Your task to perform on an android device: Go to settings Image 0: 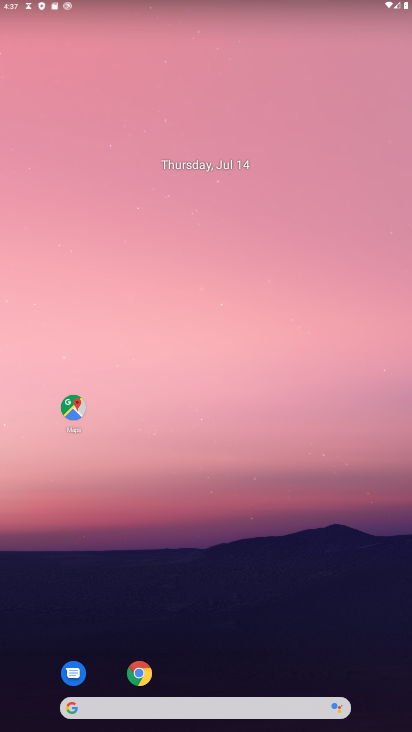
Step 0: drag from (282, 489) to (235, 175)
Your task to perform on an android device: Go to settings Image 1: 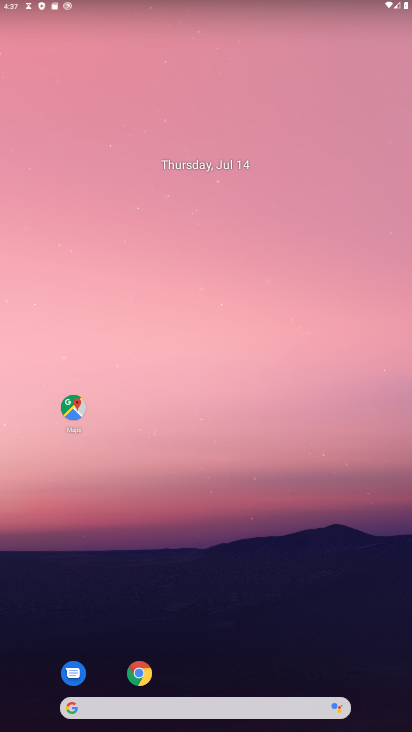
Step 1: drag from (216, 432) to (135, 119)
Your task to perform on an android device: Go to settings Image 2: 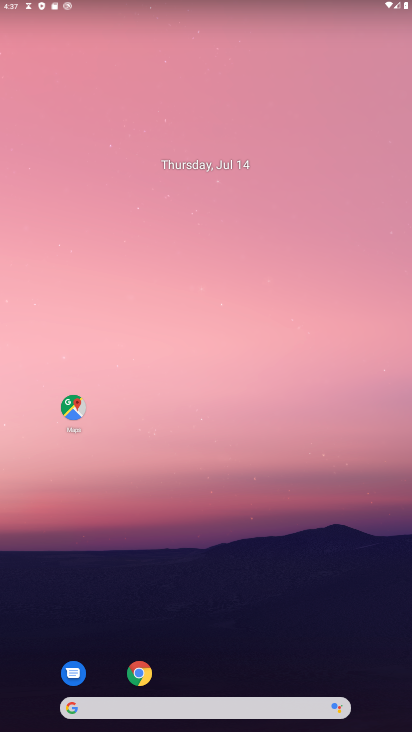
Step 2: drag from (205, 468) to (152, 69)
Your task to perform on an android device: Go to settings Image 3: 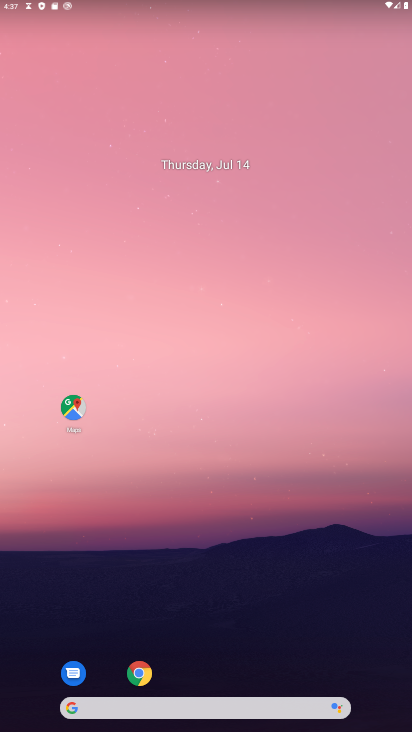
Step 3: click (176, 113)
Your task to perform on an android device: Go to settings Image 4: 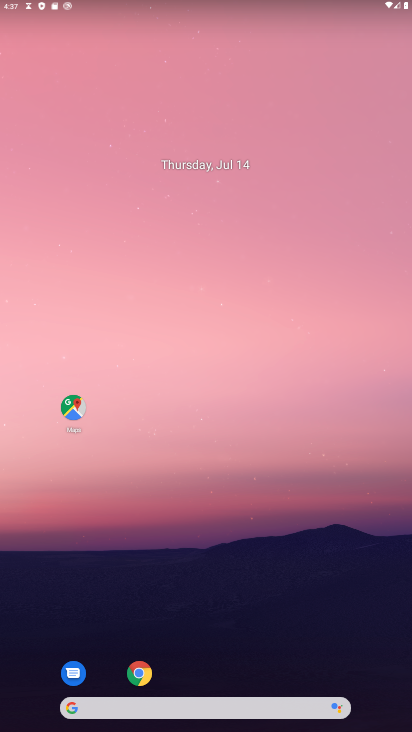
Step 4: drag from (263, 281) to (263, 65)
Your task to perform on an android device: Go to settings Image 5: 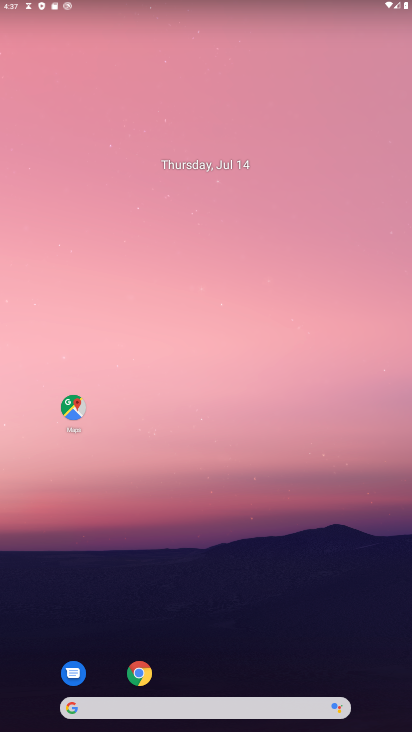
Step 5: drag from (245, 474) to (254, 222)
Your task to perform on an android device: Go to settings Image 6: 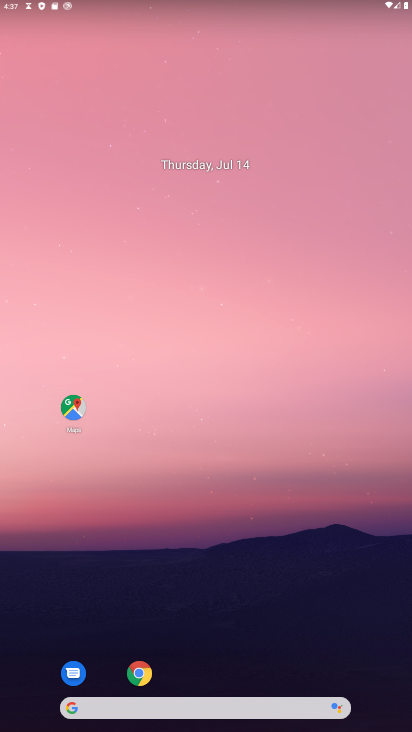
Step 6: drag from (238, 399) to (211, 88)
Your task to perform on an android device: Go to settings Image 7: 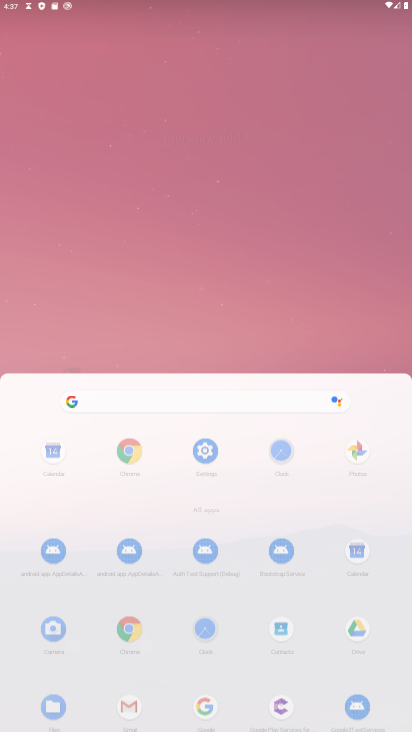
Step 7: drag from (221, 422) to (199, 105)
Your task to perform on an android device: Go to settings Image 8: 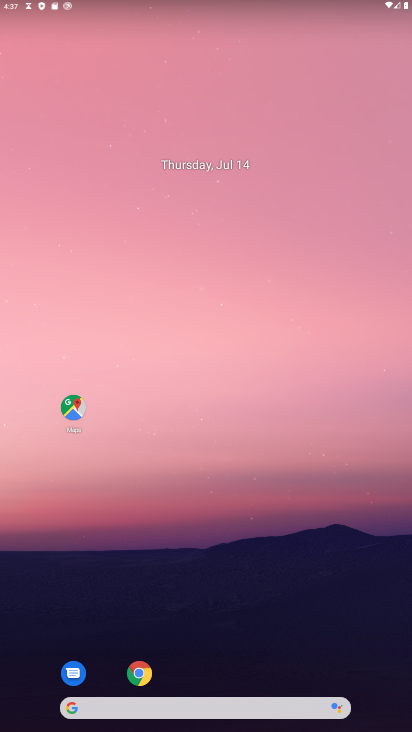
Step 8: drag from (181, 426) to (178, 27)
Your task to perform on an android device: Go to settings Image 9: 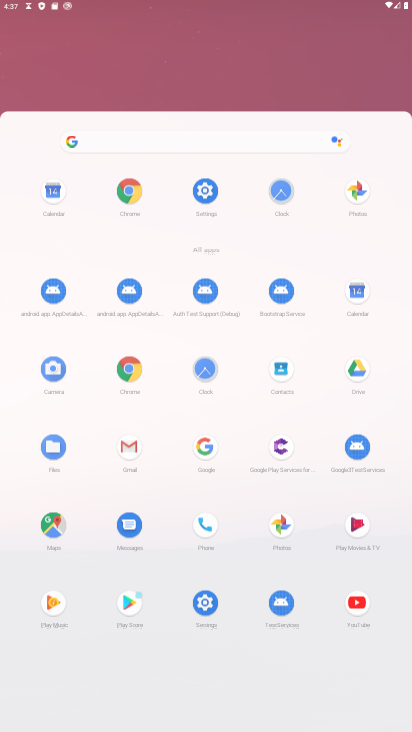
Step 9: click (252, 37)
Your task to perform on an android device: Go to settings Image 10: 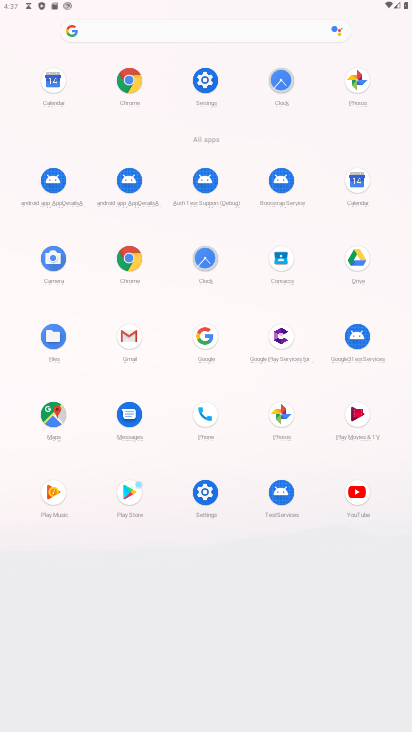
Step 10: drag from (286, 347) to (202, 113)
Your task to perform on an android device: Go to settings Image 11: 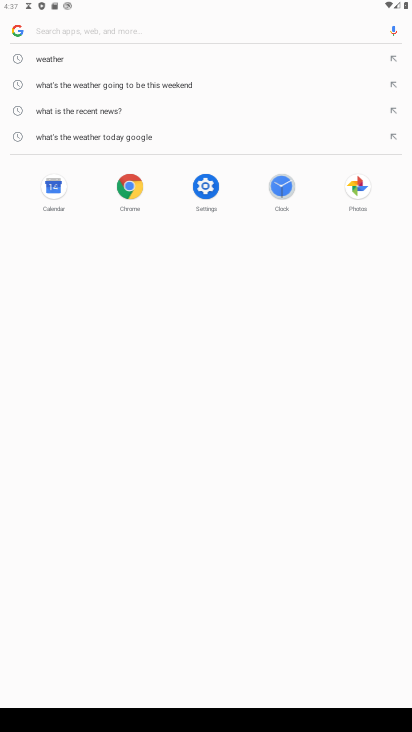
Step 11: click (207, 183)
Your task to perform on an android device: Go to settings Image 12: 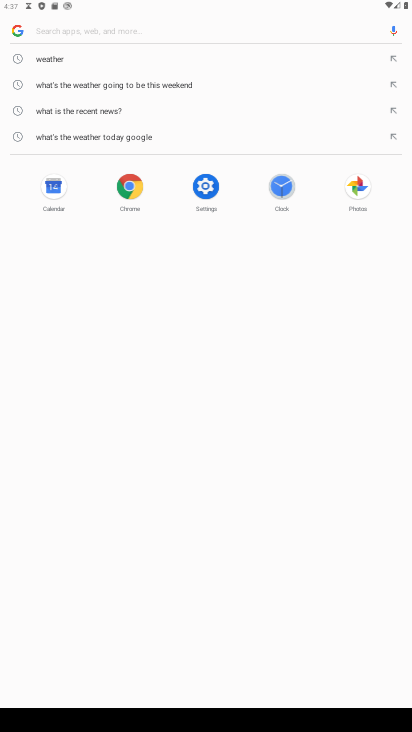
Step 12: click (205, 179)
Your task to perform on an android device: Go to settings Image 13: 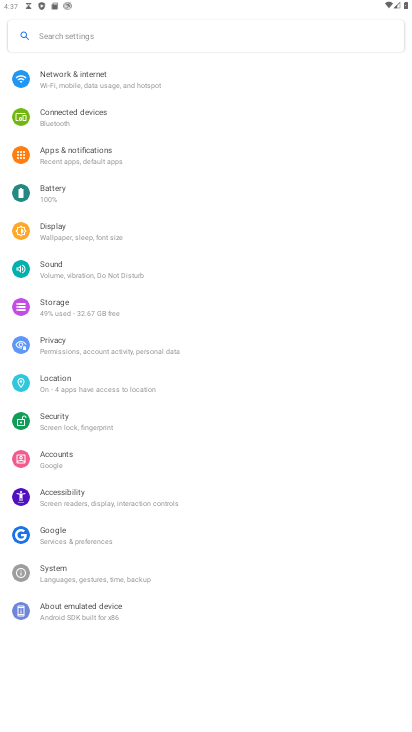
Step 13: click (206, 190)
Your task to perform on an android device: Go to settings Image 14: 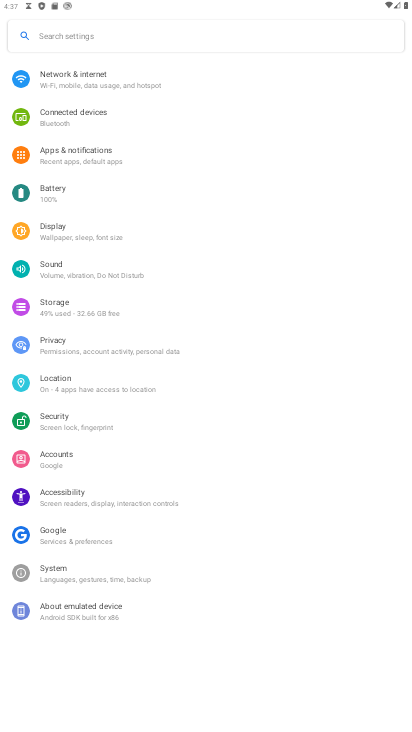
Step 14: click (206, 190)
Your task to perform on an android device: Go to settings Image 15: 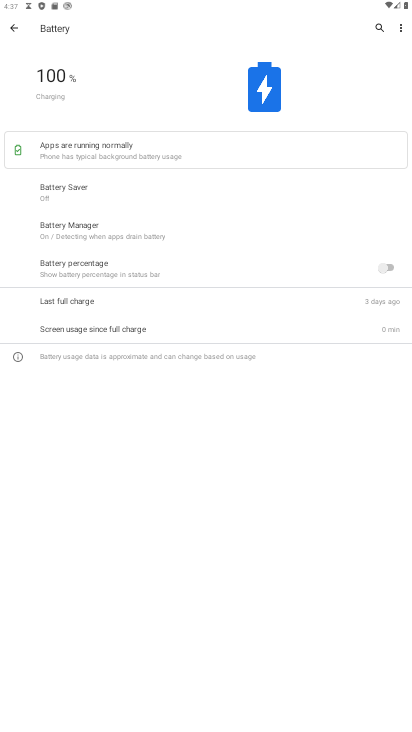
Step 15: task complete